Your task to perform on an android device: turn off wifi Image 0: 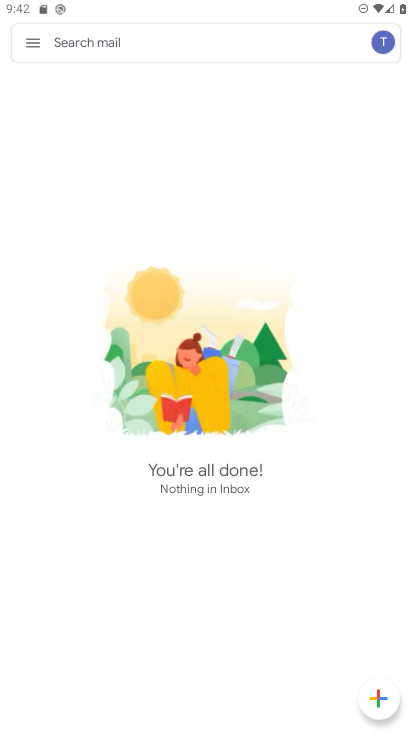
Step 0: press home button
Your task to perform on an android device: turn off wifi Image 1: 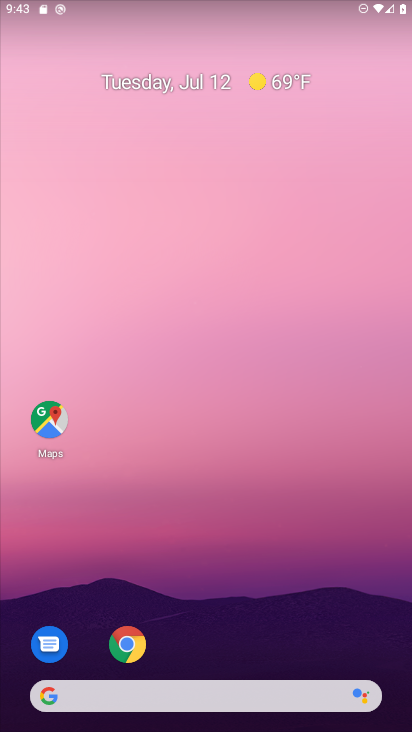
Step 1: drag from (216, 638) to (230, 11)
Your task to perform on an android device: turn off wifi Image 2: 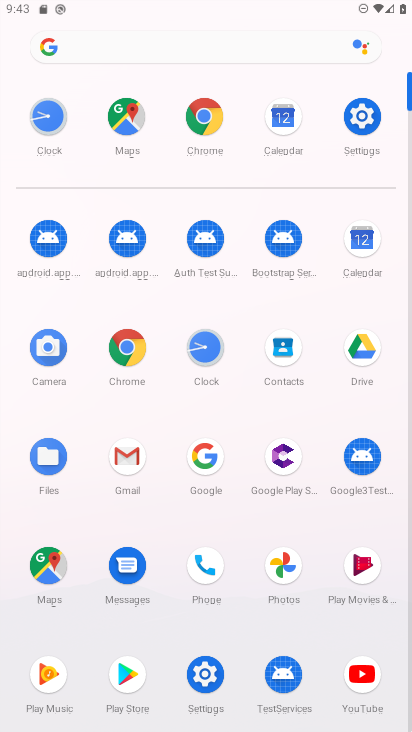
Step 2: click (360, 115)
Your task to perform on an android device: turn off wifi Image 3: 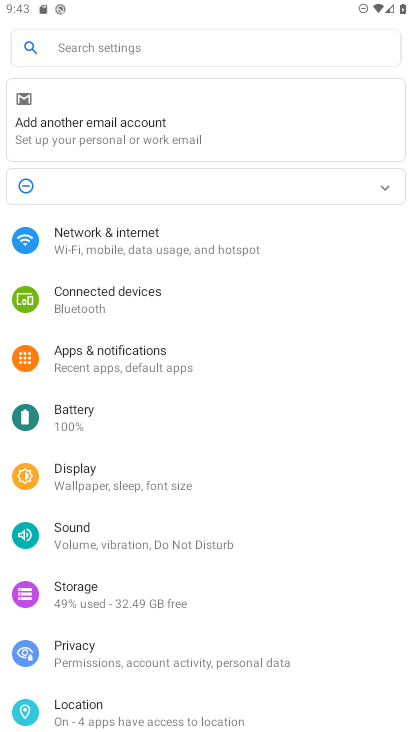
Step 3: click (163, 242)
Your task to perform on an android device: turn off wifi Image 4: 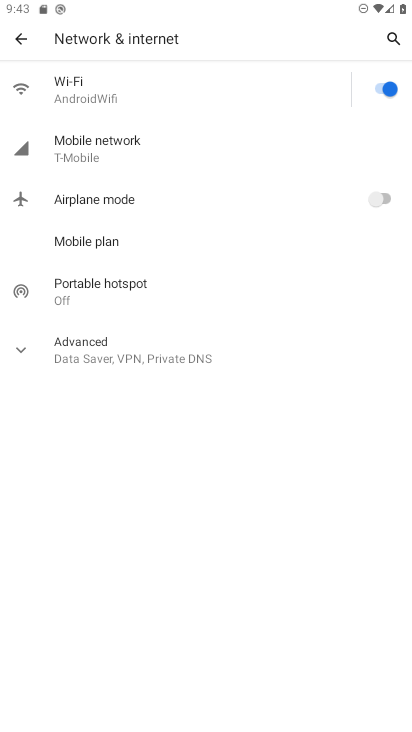
Step 4: click (379, 84)
Your task to perform on an android device: turn off wifi Image 5: 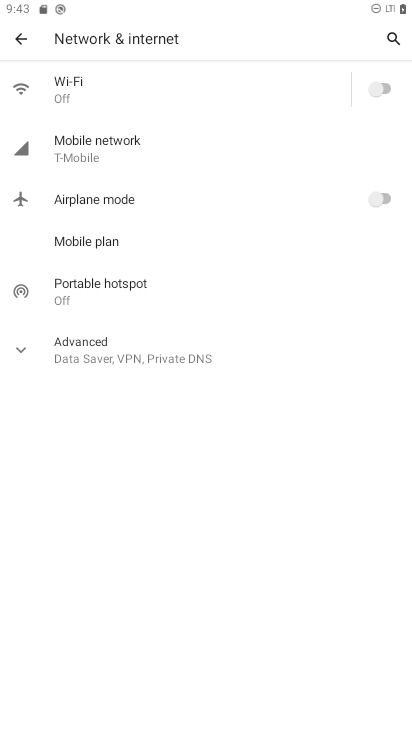
Step 5: task complete